Your task to perform on an android device: What's the price of the Hisense TV? Image 0: 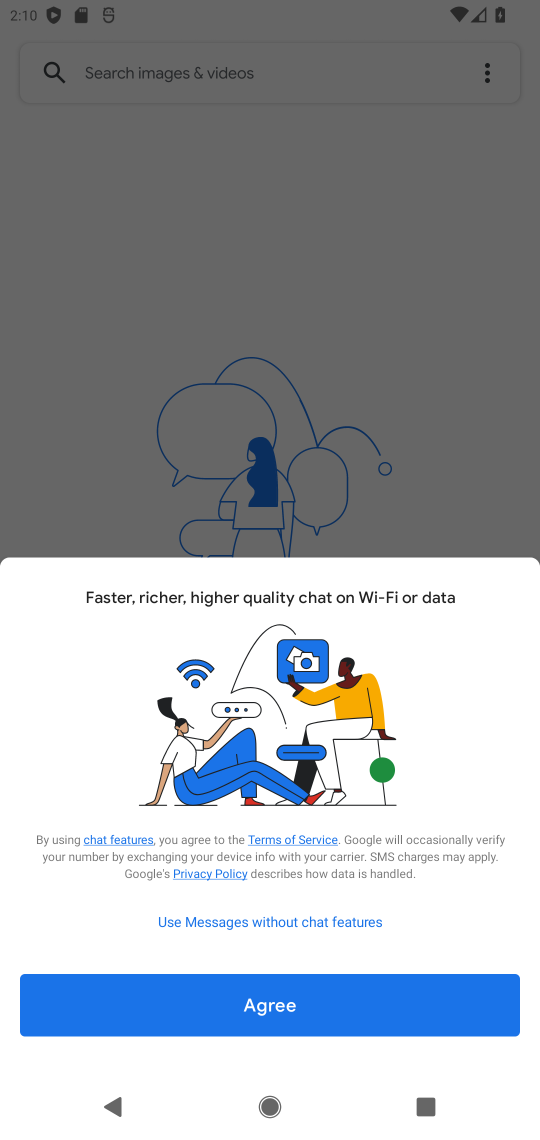
Step 0: press home button
Your task to perform on an android device: What's the price of the Hisense TV? Image 1: 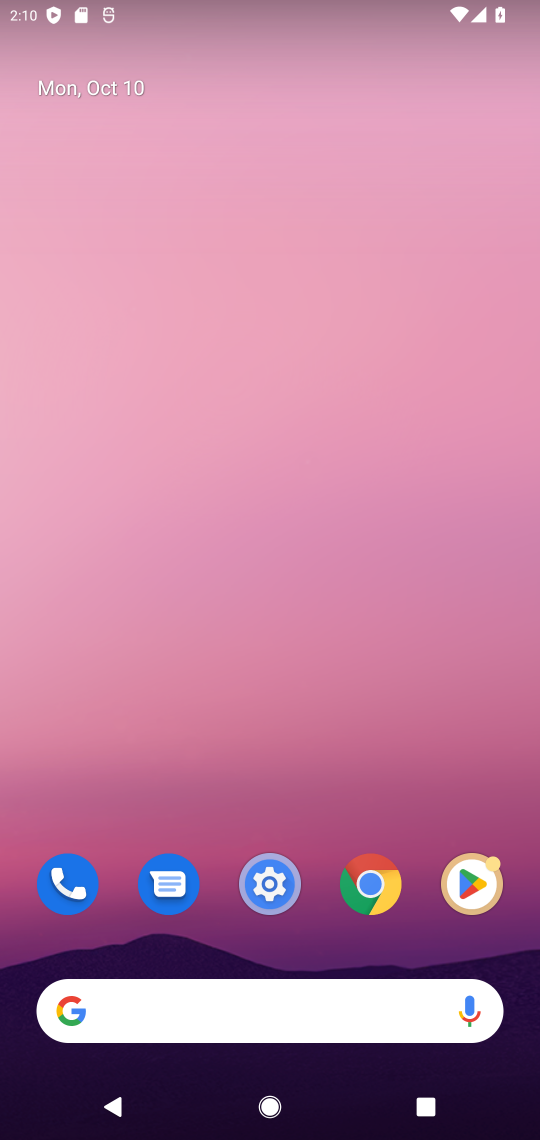
Step 1: click (215, 1021)
Your task to perform on an android device: What's the price of the Hisense TV? Image 2: 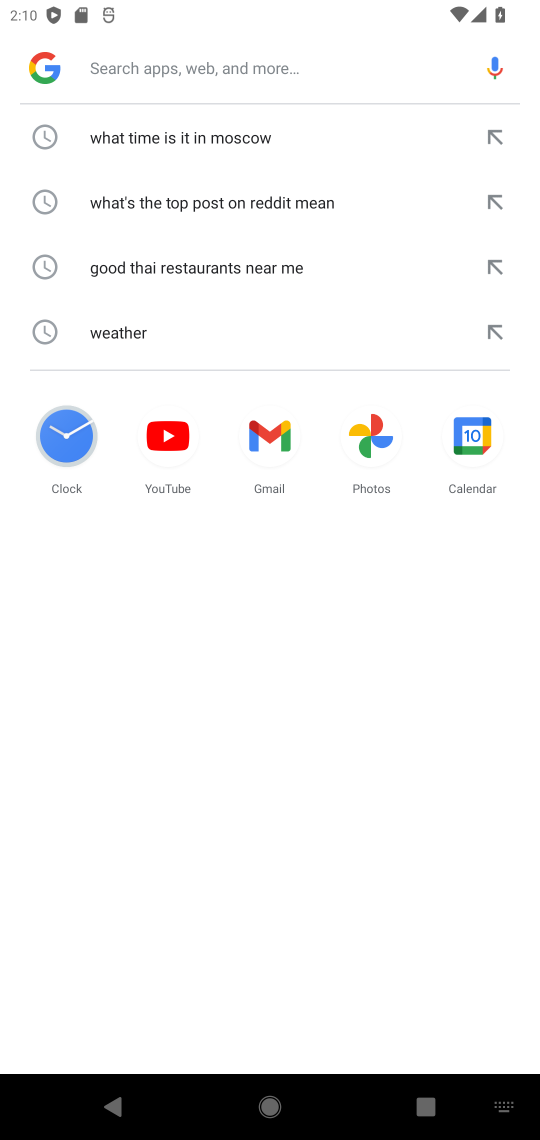
Step 2: type "What's the price of the Hisense TV"
Your task to perform on an android device: What's the price of the Hisense TV? Image 3: 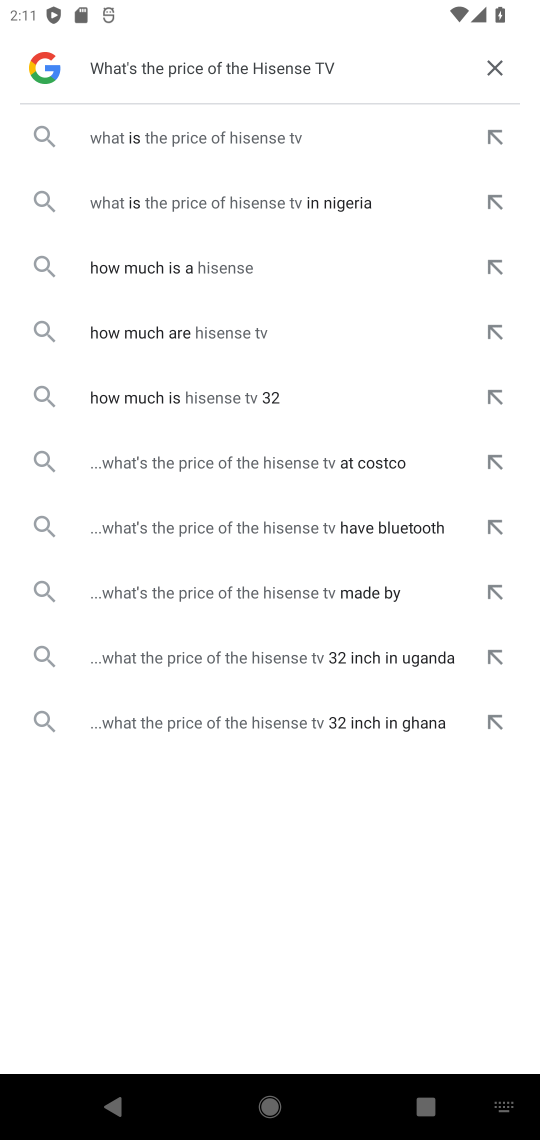
Step 3: click (228, 134)
Your task to perform on an android device: What's the price of the Hisense TV? Image 4: 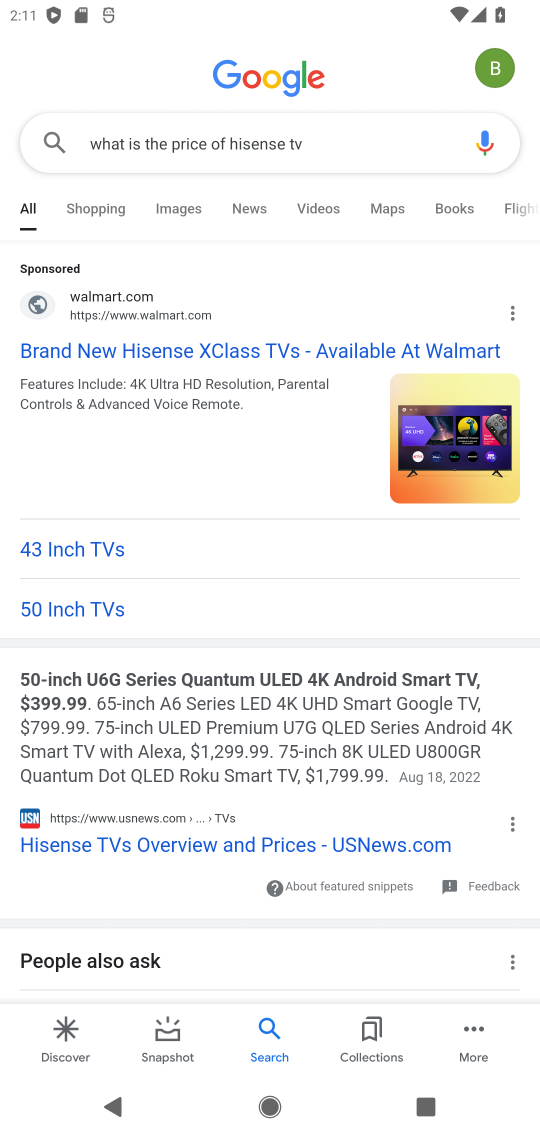
Step 4: click (198, 355)
Your task to perform on an android device: What's the price of the Hisense TV? Image 5: 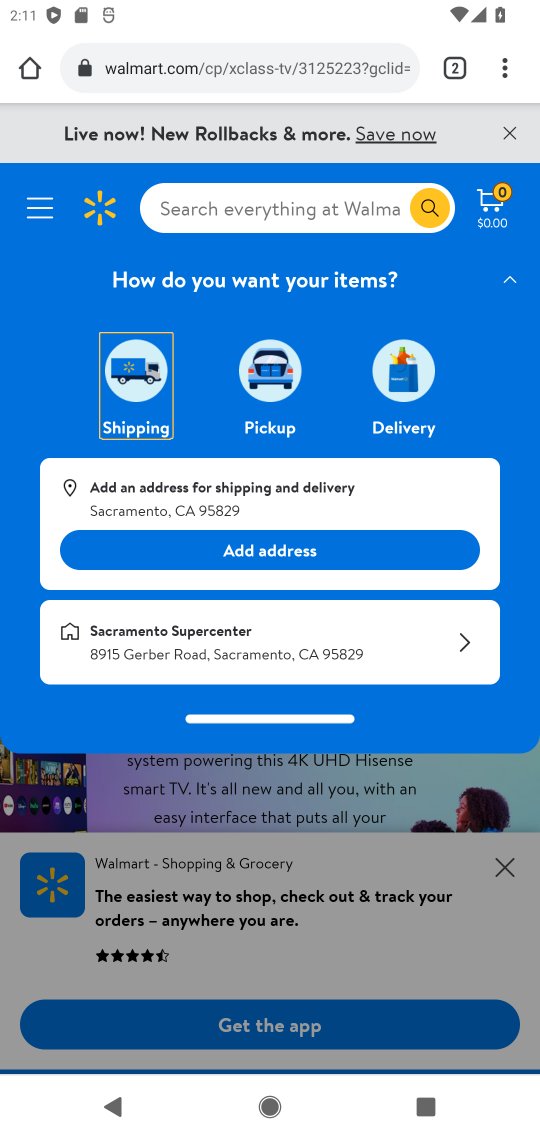
Step 5: click (496, 859)
Your task to perform on an android device: What's the price of the Hisense TV? Image 6: 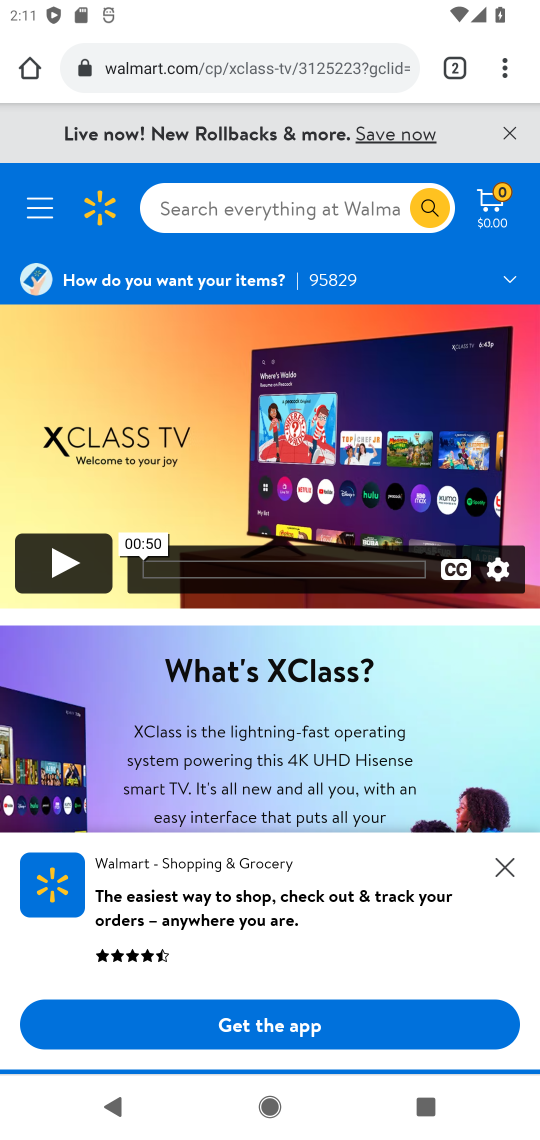
Step 6: click (507, 871)
Your task to perform on an android device: What's the price of the Hisense TV? Image 7: 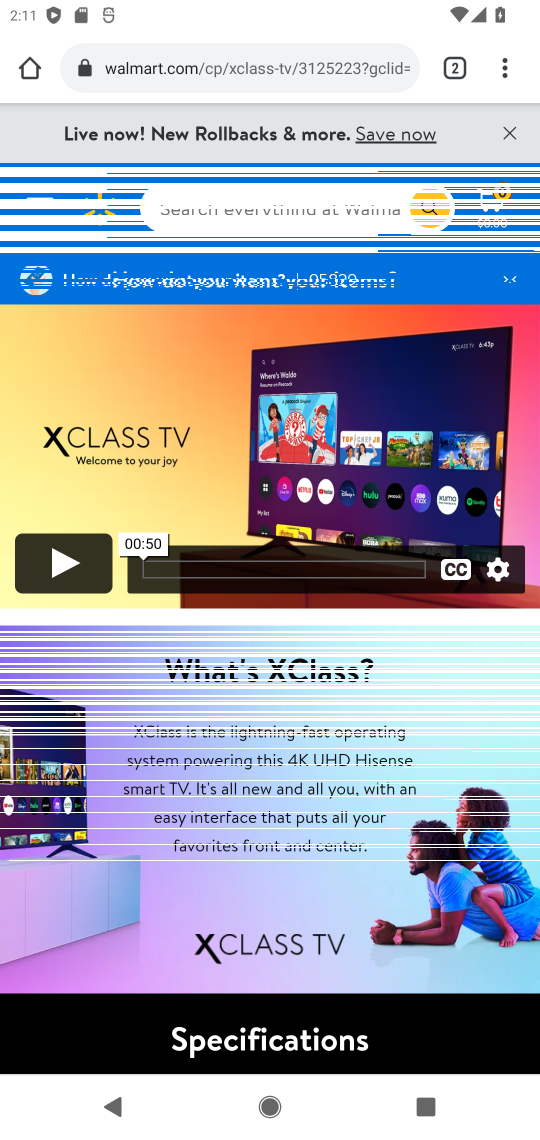
Step 7: task complete